Your task to perform on an android device: turn pop-ups off in chrome Image 0: 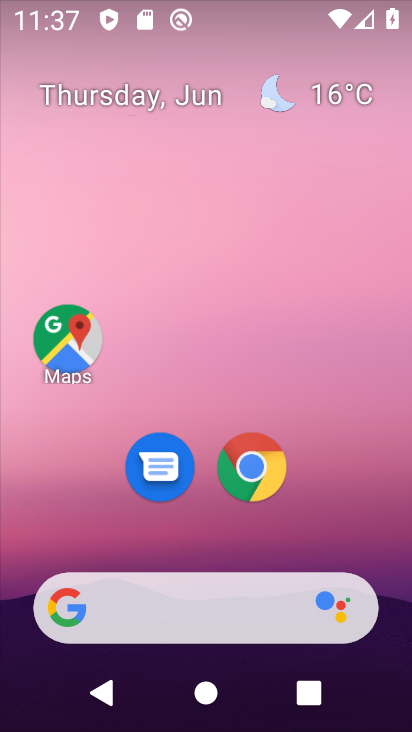
Step 0: click (251, 469)
Your task to perform on an android device: turn pop-ups off in chrome Image 1: 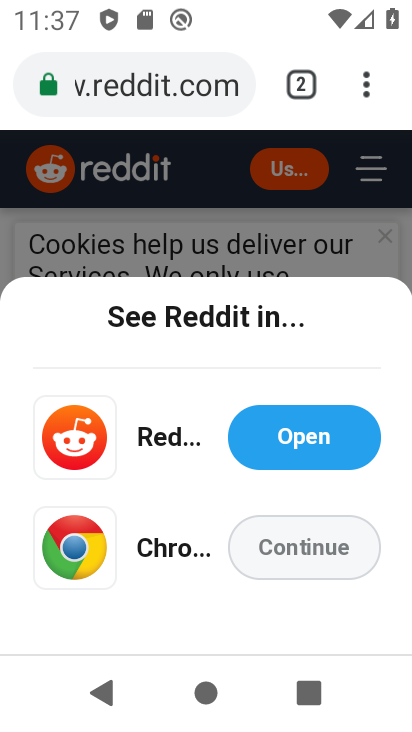
Step 1: click (367, 99)
Your task to perform on an android device: turn pop-ups off in chrome Image 2: 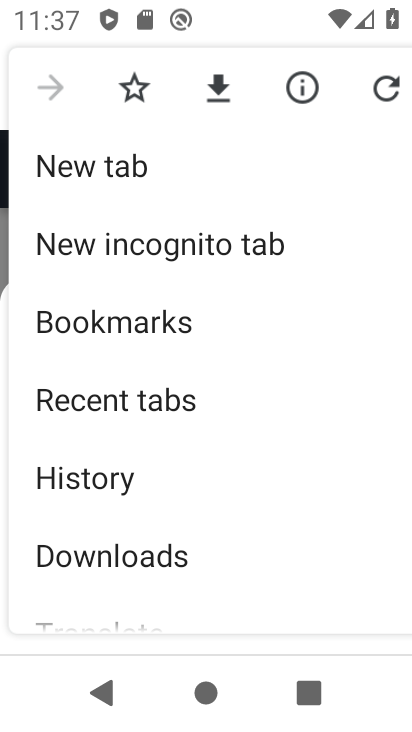
Step 2: drag from (212, 577) to (316, 215)
Your task to perform on an android device: turn pop-ups off in chrome Image 3: 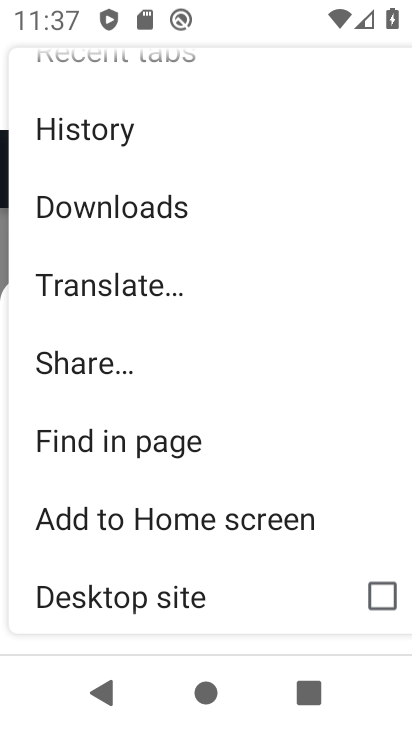
Step 3: drag from (295, 606) to (338, 216)
Your task to perform on an android device: turn pop-ups off in chrome Image 4: 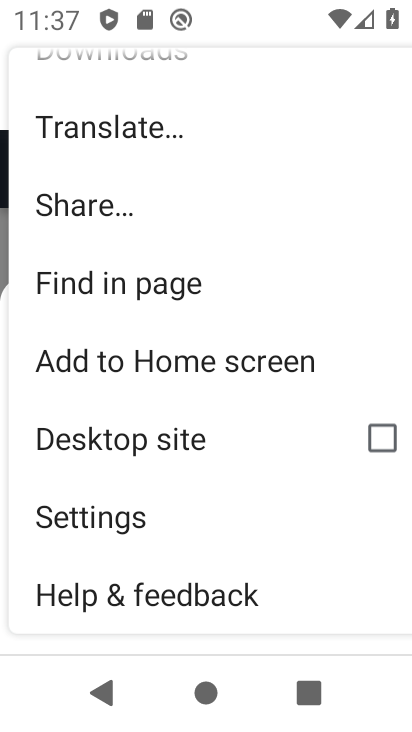
Step 4: click (124, 523)
Your task to perform on an android device: turn pop-ups off in chrome Image 5: 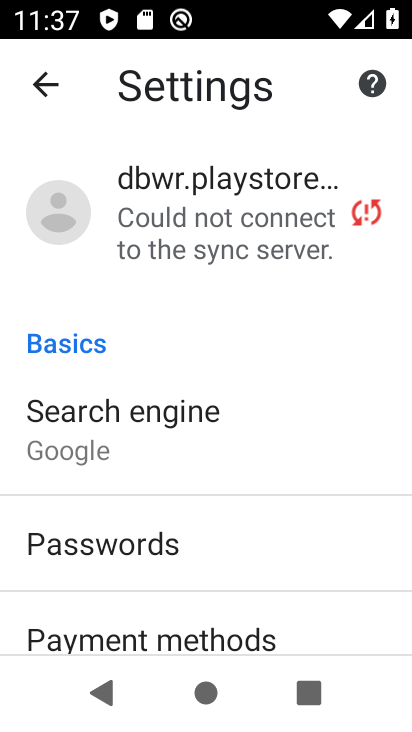
Step 5: drag from (287, 618) to (273, 116)
Your task to perform on an android device: turn pop-ups off in chrome Image 6: 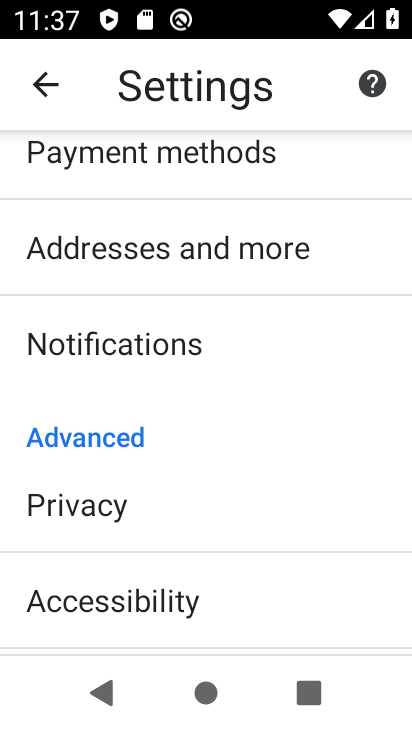
Step 6: drag from (224, 565) to (331, 174)
Your task to perform on an android device: turn pop-ups off in chrome Image 7: 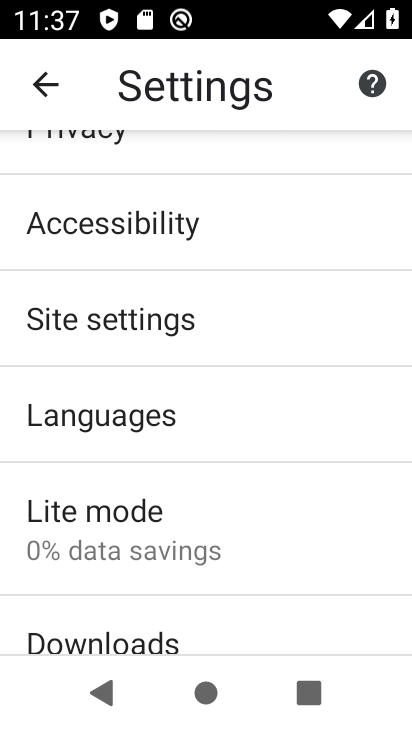
Step 7: click (100, 326)
Your task to perform on an android device: turn pop-ups off in chrome Image 8: 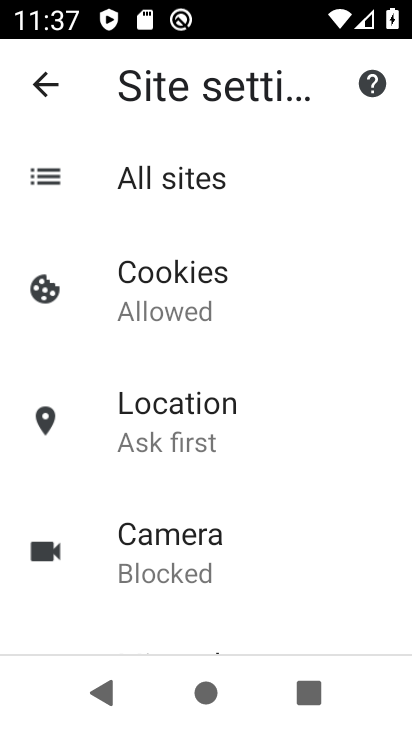
Step 8: drag from (260, 595) to (252, 105)
Your task to perform on an android device: turn pop-ups off in chrome Image 9: 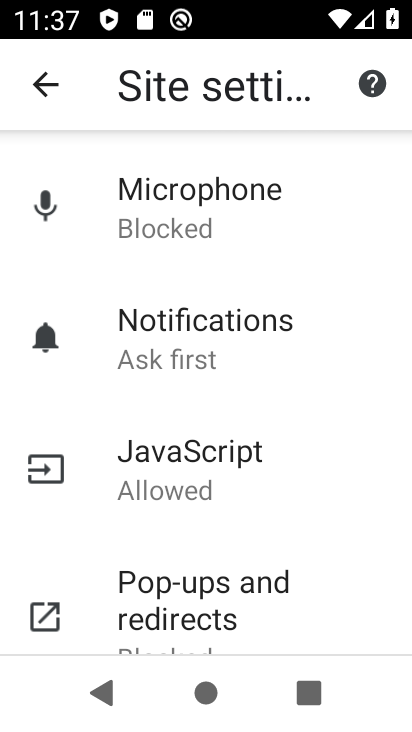
Step 9: drag from (205, 608) to (283, 267)
Your task to perform on an android device: turn pop-ups off in chrome Image 10: 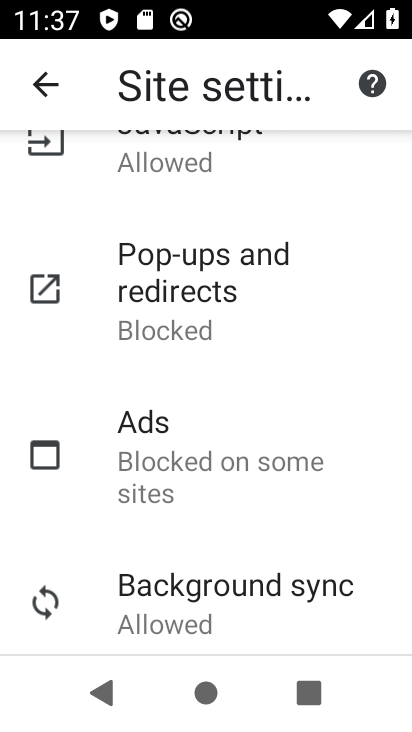
Step 10: click (169, 293)
Your task to perform on an android device: turn pop-ups off in chrome Image 11: 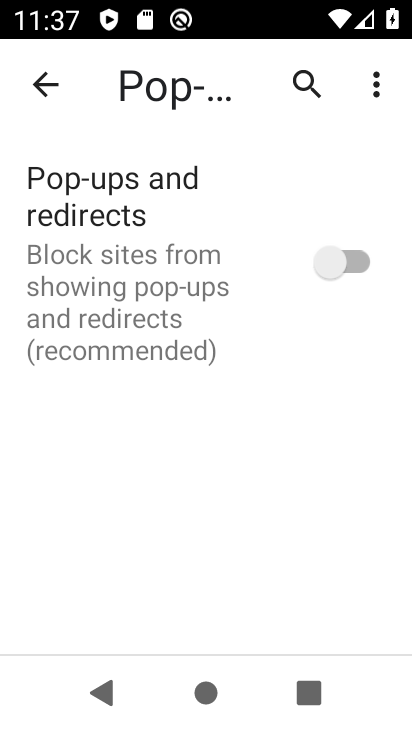
Step 11: task complete